Your task to perform on an android device: turn off airplane mode Image 0: 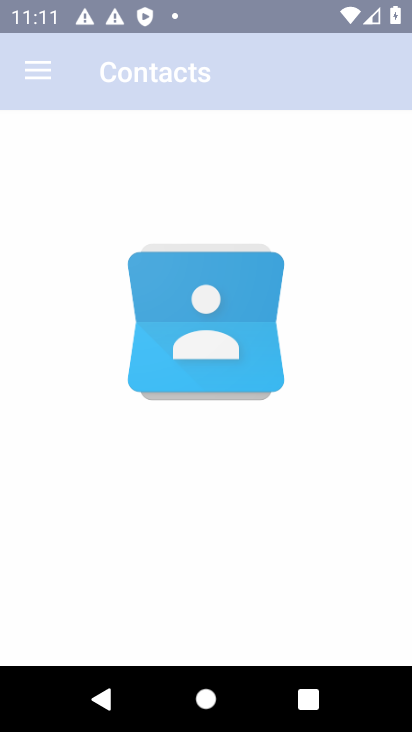
Step 0: drag from (198, 570) to (183, 86)
Your task to perform on an android device: turn off airplane mode Image 1: 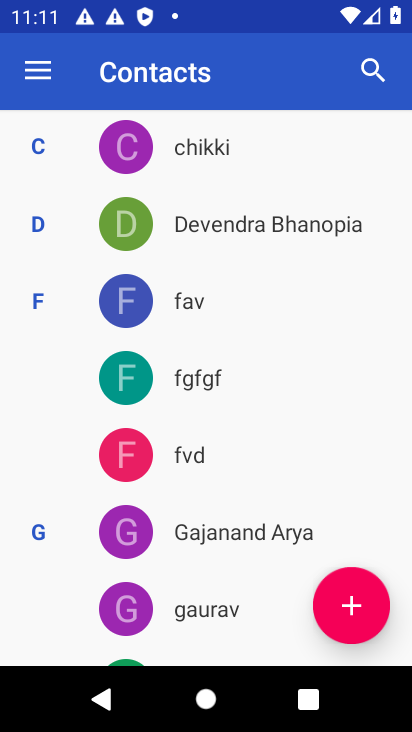
Step 1: press home button
Your task to perform on an android device: turn off airplane mode Image 2: 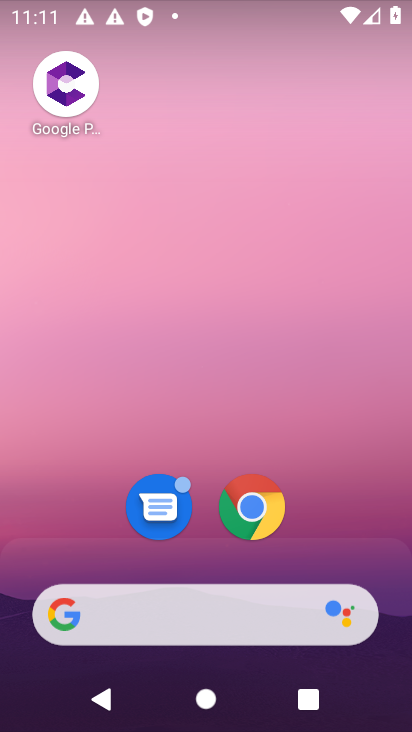
Step 2: drag from (211, 565) to (227, 34)
Your task to perform on an android device: turn off airplane mode Image 3: 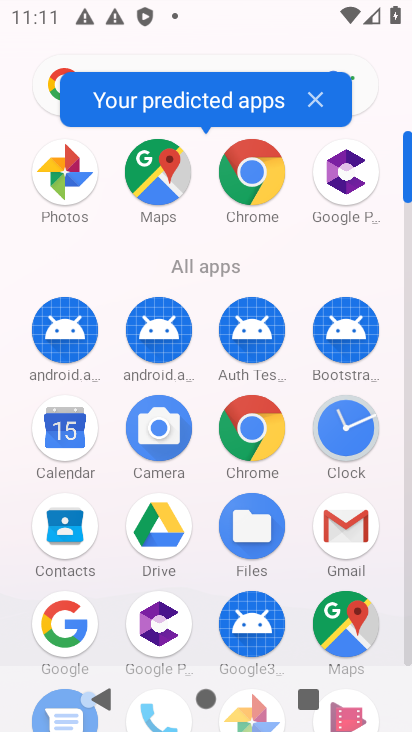
Step 3: drag from (203, 556) to (186, 211)
Your task to perform on an android device: turn off airplane mode Image 4: 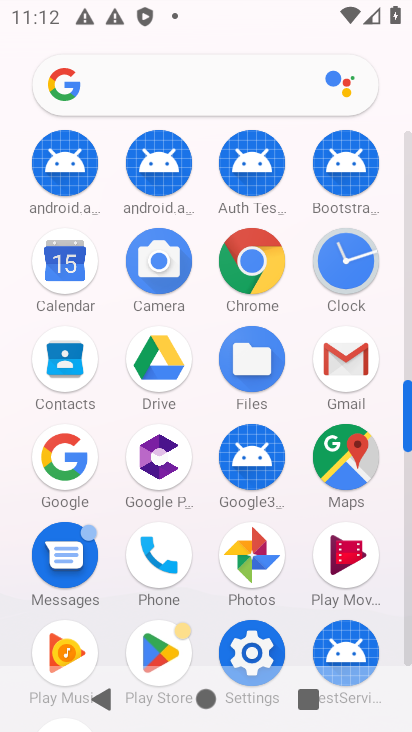
Step 4: click (251, 654)
Your task to perform on an android device: turn off airplane mode Image 5: 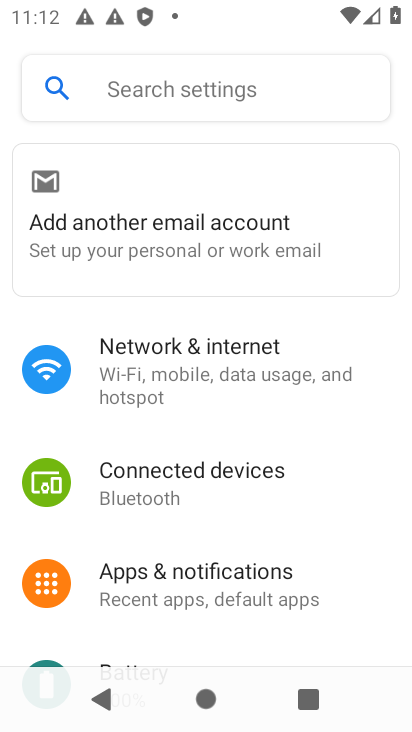
Step 5: click (191, 346)
Your task to perform on an android device: turn off airplane mode Image 6: 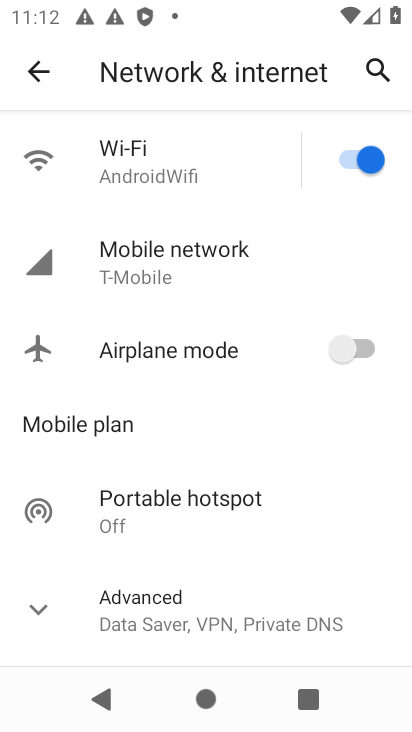
Step 6: task complete